Your task to perform on an android device: Open Youtube and go to "Your channel" Image 0: 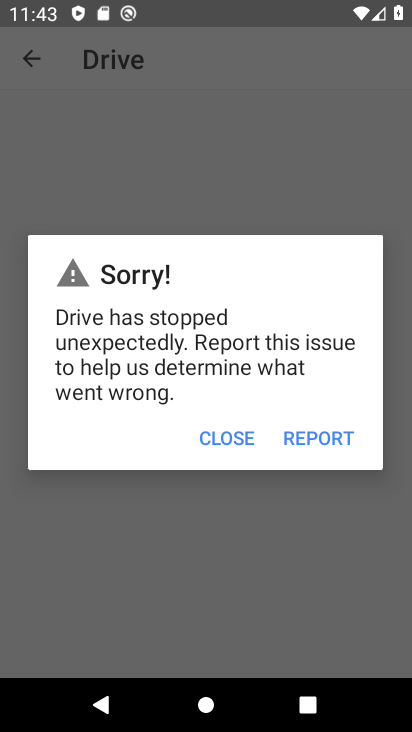
Step 0: press home button
Your task to perform on an android device: Open Youtube and go to "Your channel" Image 1: 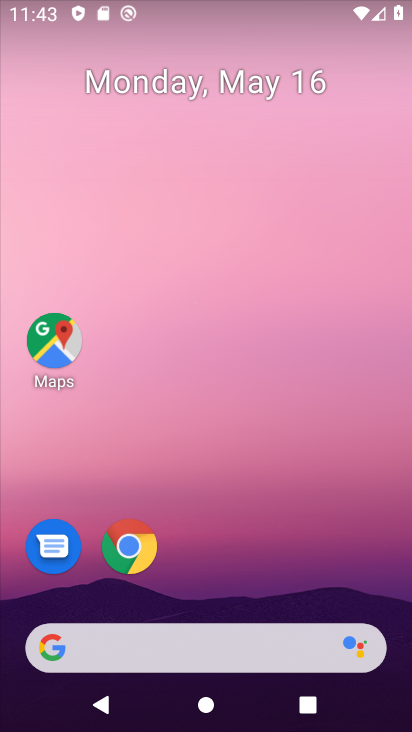
Step 1: drag from (235, 545) to (211, 69)
Your task to perform on an android device: Open Youtube and go to "Your channel" Image 2: 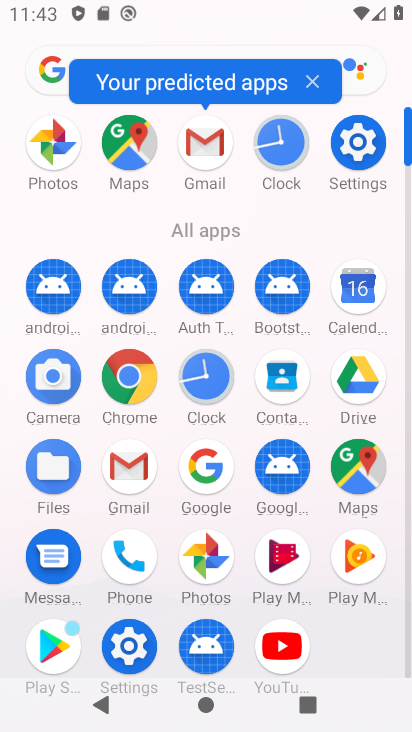
Step 2: click (281, 641)
Your task to perform on an android device: Open Youtube and go to "Your channel" Image 3: 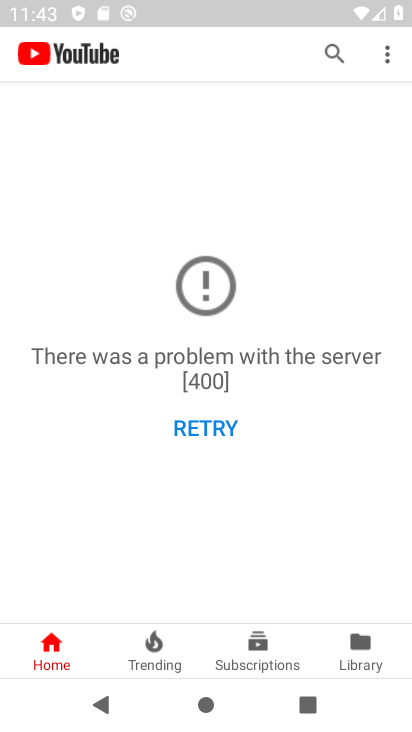
Step 3: task complete